Your task to perform on an android device: When is my next meeting? Image 0: 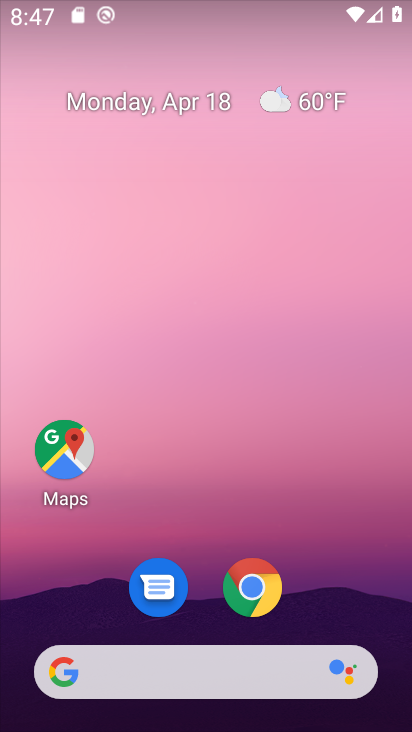
Step 0: drag from (351, 506) to (211, 83)
Your task to perform on an android device: When is my next meeting? Image 1: 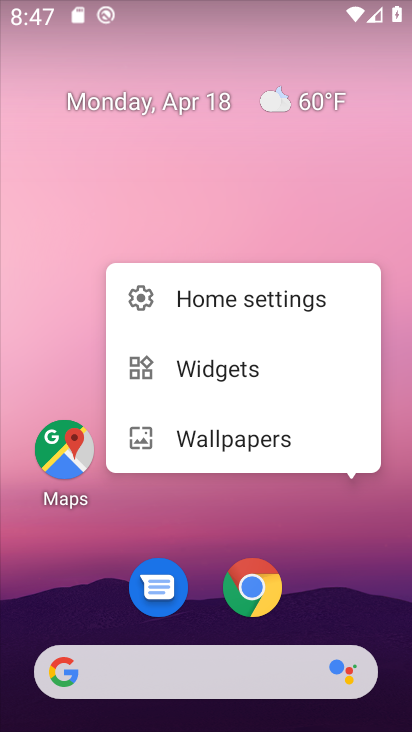
Step 1: click (77, 376)
Your task to perform on an android device: When is my next meeting? Image 2: 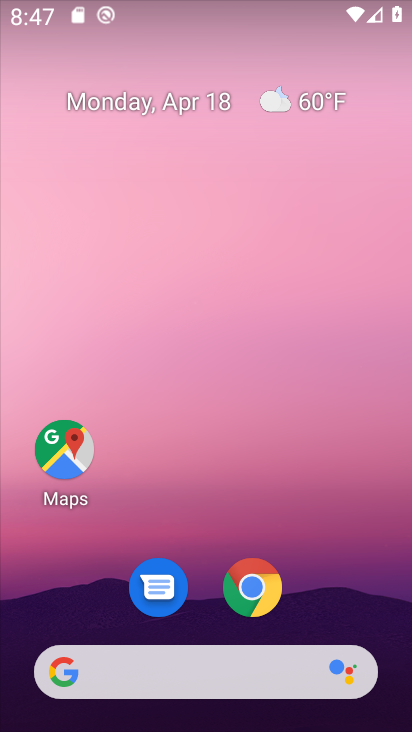
Step 2: drag from (356, 566) to (235, 246)
Your task to perform on an android device: When is my next meeting? Image 3: 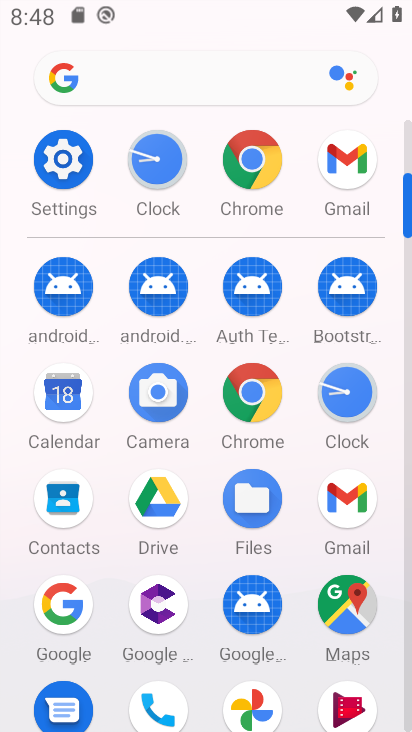
Step 3: click (72, 424)
Your task to perform on an android device: When is my next meeting? Image 4: 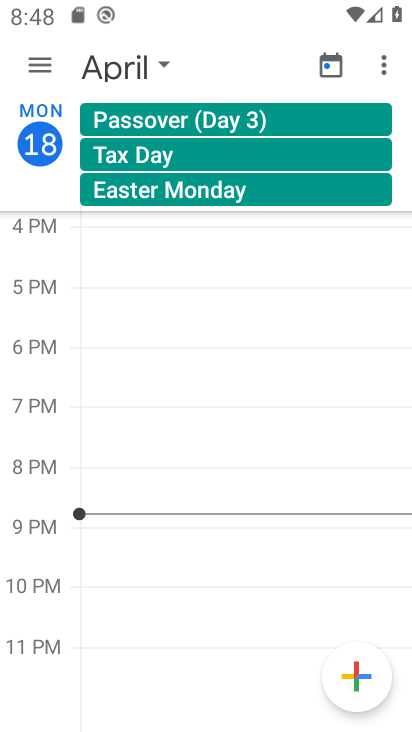
Step 4: click (35, 154)
Your task to perform on an android device: When is my next meeting? Image 5: 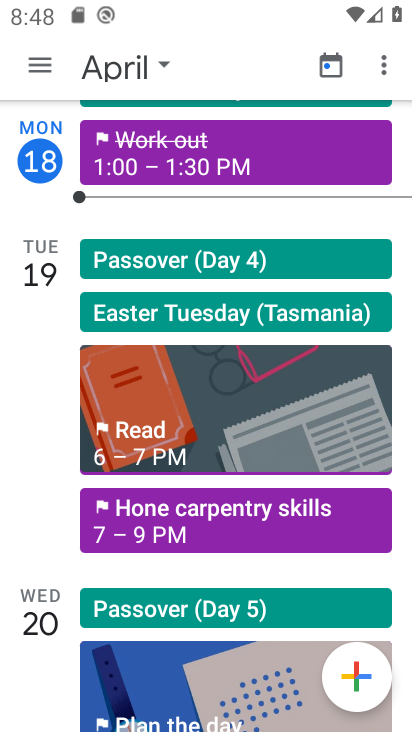
Step 5: click (15, 265)
Your task to perform on an android device: When is my next meeting? Image 6: 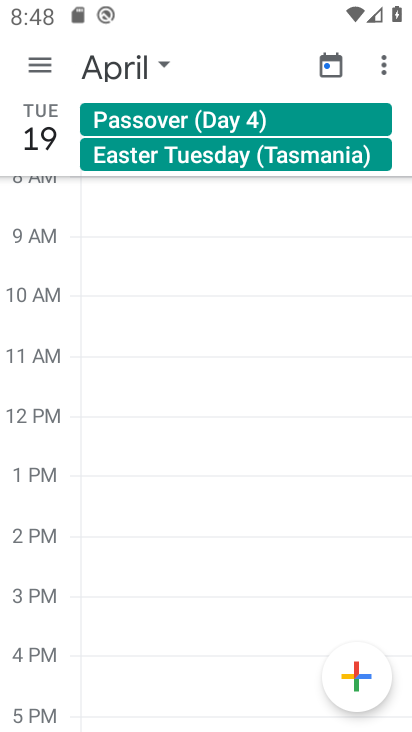
Step 6: click (37, 69)
Your task to perform on an android device: When is my next meeting? Image 7: 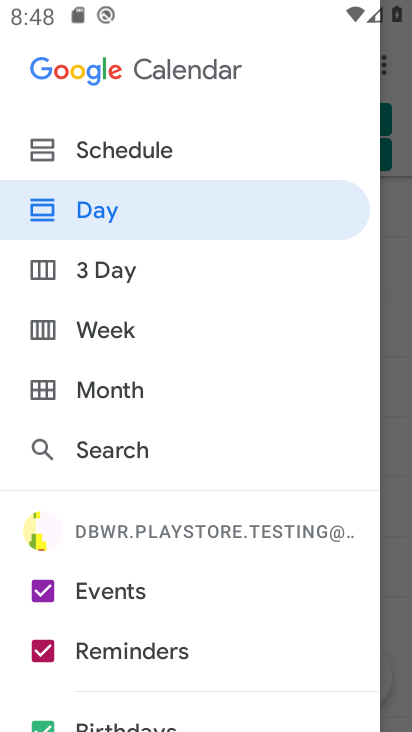
Step 7: click (396, 310)
Your task to perform on an android device: When is my next meeting? Image 8: 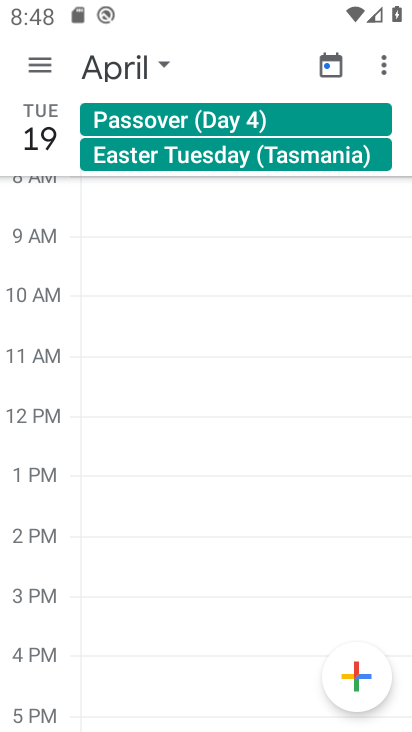
Step 8: task complete